Your task to perform on an android device: toggle pop-ups in chrome Image 0: 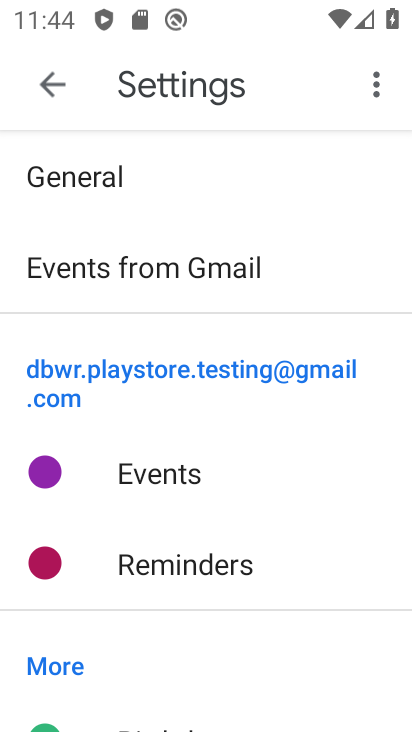
Step 0: press back button
Your task to perform on an android device: toggle pop-ups in chrome Image 1: 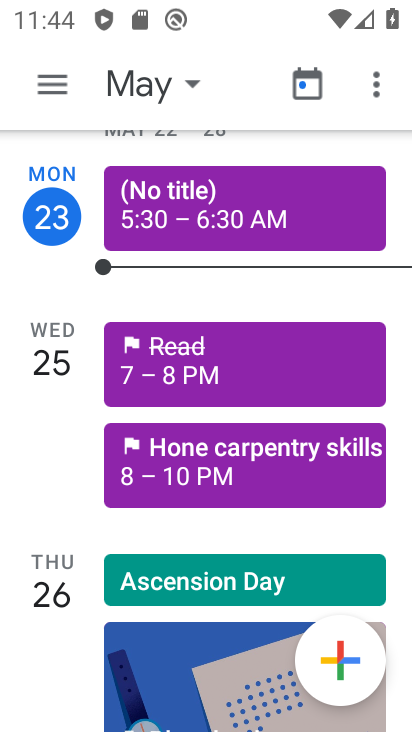
Step 1: press back button
Your task to perform on an android device: toggle pop-ups in chrome Image 2: 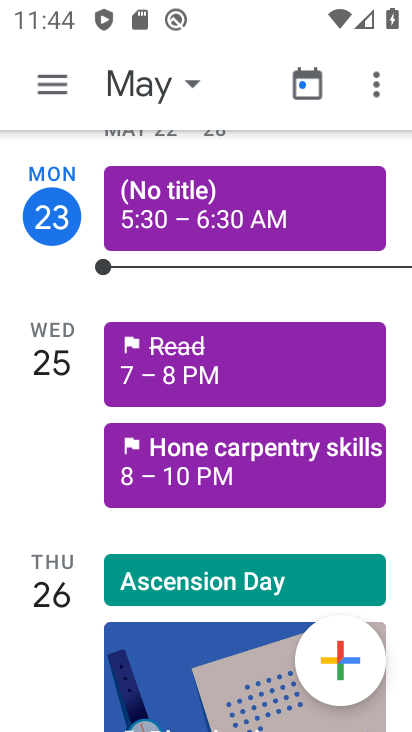
Step 2: press back button
Your task to perform on an android device: toggle pop-ups in chrome Image 3: 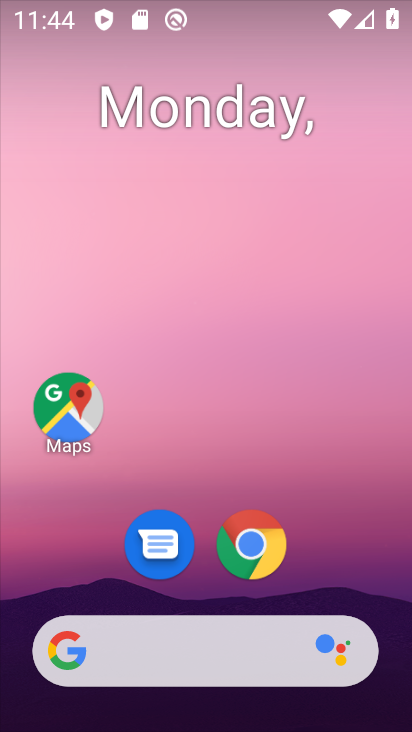
Step 3: press home button
Your task to perform on an android device: toggle pop-ups in chrome Image 4: 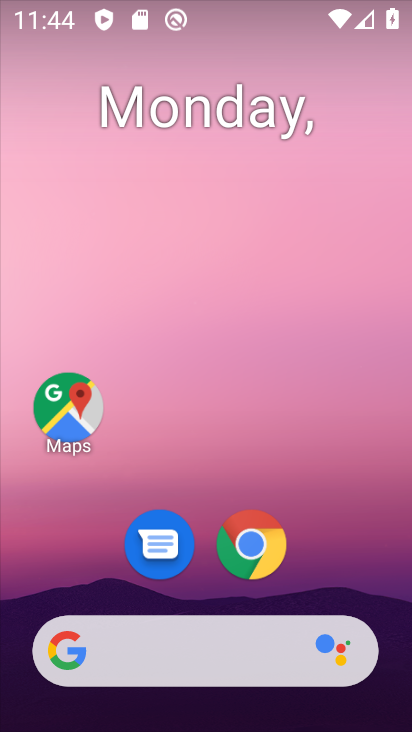
Step 4: click (260, 548)
Your task to perform on an android device: toggle pop-ups in chrome Image 5: 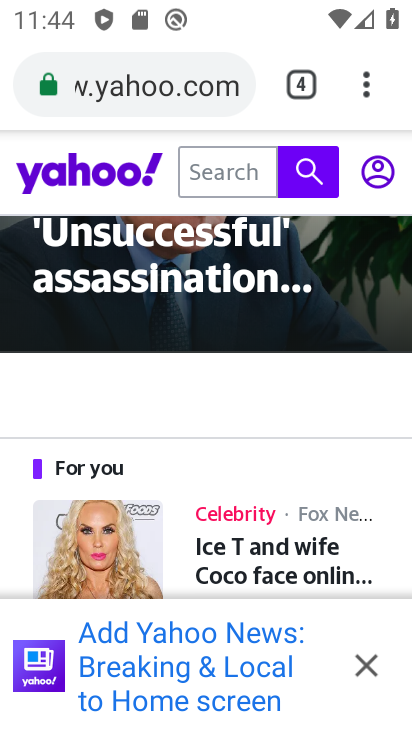
Step 5: click (363, 72)
Your task to perform on an android device: toggle pop-ups in chrome Image 6: 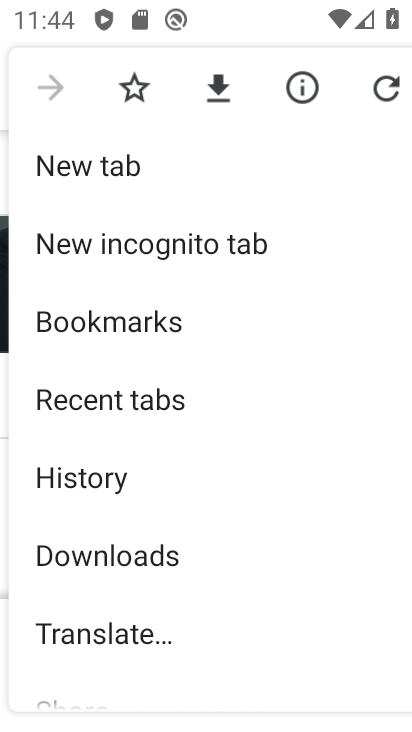
Step 6: click (254, 611)
Your task to perform on an android device: toggle pop-ups in chrome Image 7: 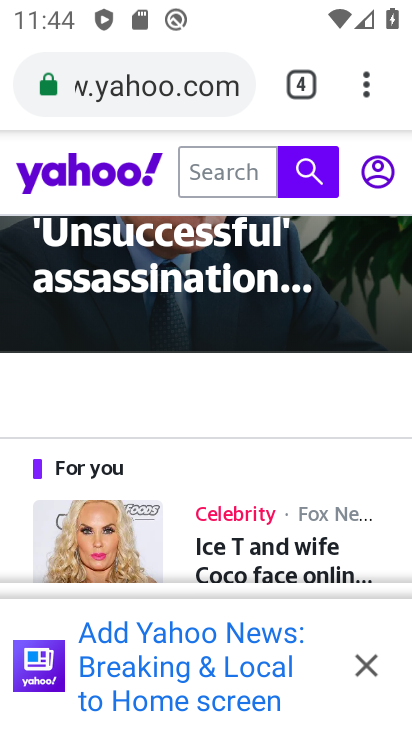
Step 7: click (373, 84)
Your task to perform on an android device: toggle pop-ups in chrome Image 8: 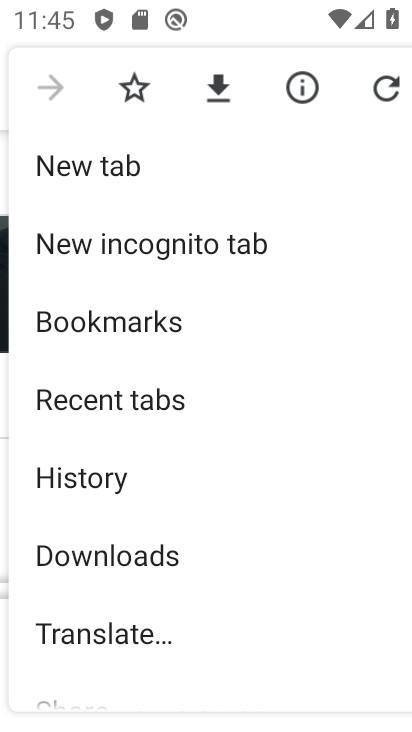
Step 8: click (239, 475)
Your task to perform on an android device: toggle pop-ups in chrome Image 9: 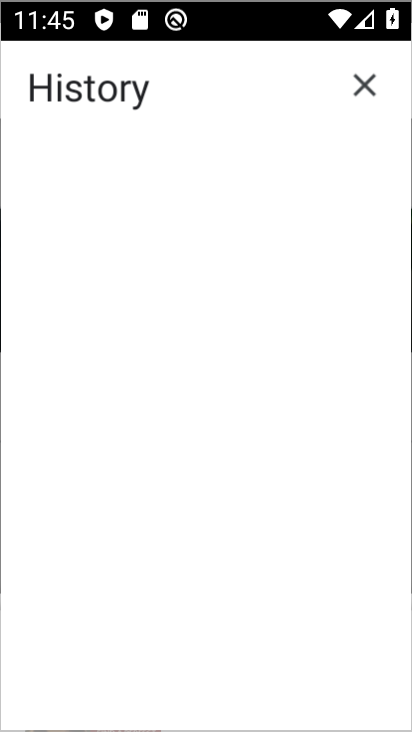
Step 9: drag from (195, 156) to (58, 72)
Your task to perform on an android device: toggle pop-ups in chrome Image 10: 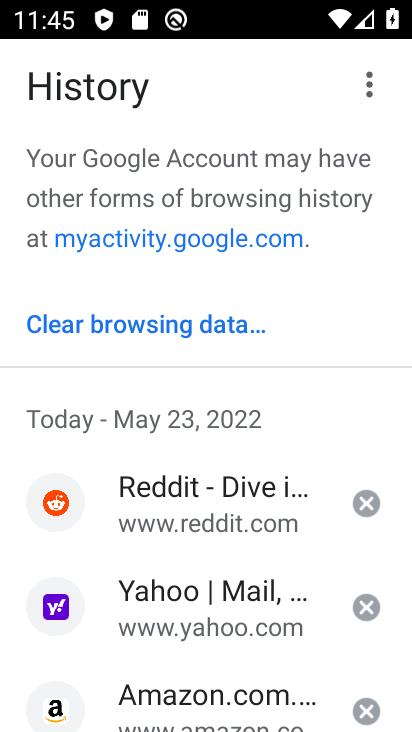
Step 10: press back button
Your task to perform on an android device: toggle pop-ups in chrome Image 11: 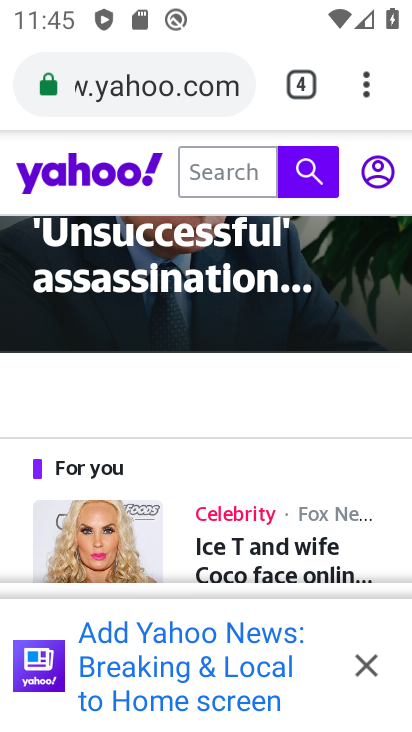
Step 11: click (378, 79)
Your task to perform on an android device: toggle pop-ups in chrome Image 12: 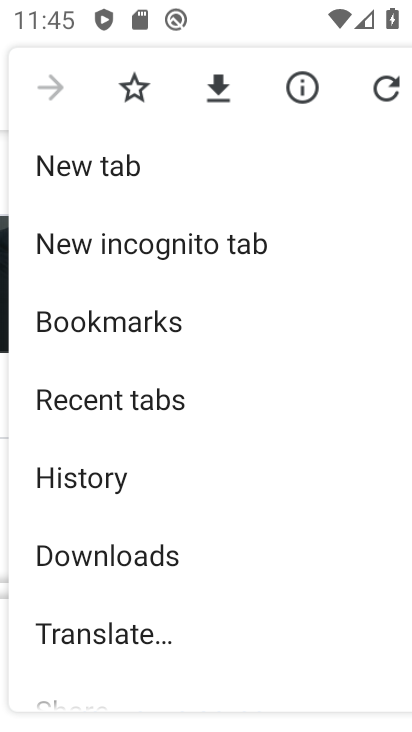
Step 12: drag from (280, 577) to (287, 260)
Your task to perform on an android device: toggle pop-ups in chrome Image 13: 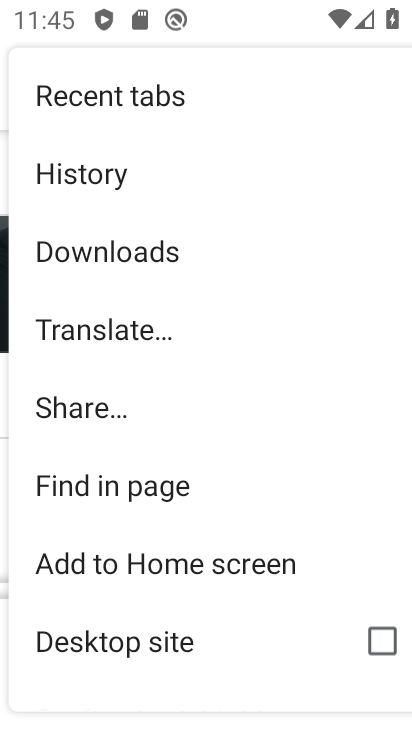
Step 13: drag from (269, 577) to (270, 256)
Your task to perform on an android device: toggle pop-ups in chrome Image 14: 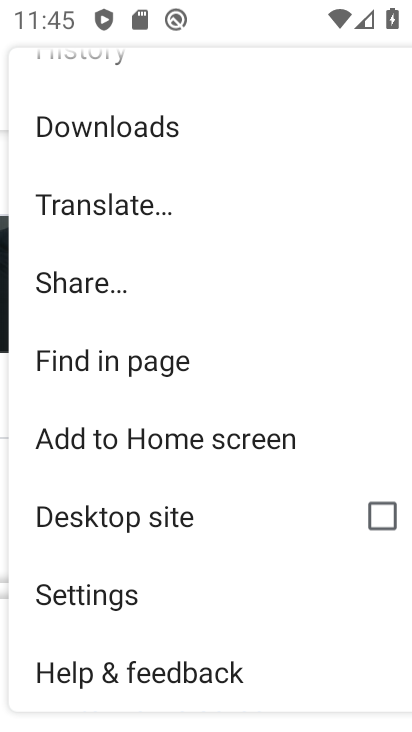
Step 14: click (150, 581)
Your task to perform on an android device: toggle pop-ups in chrome Image 15: 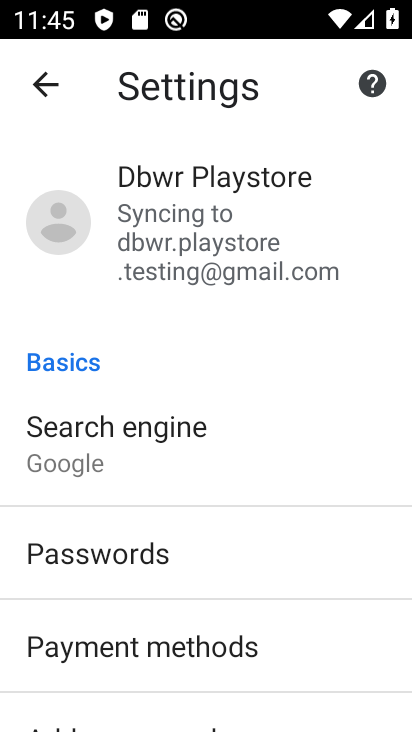
Step 15: drag from (151, 578) to (202, 233)
Your task to perform on an android device: toggle pop-ups in chrome Image 16: 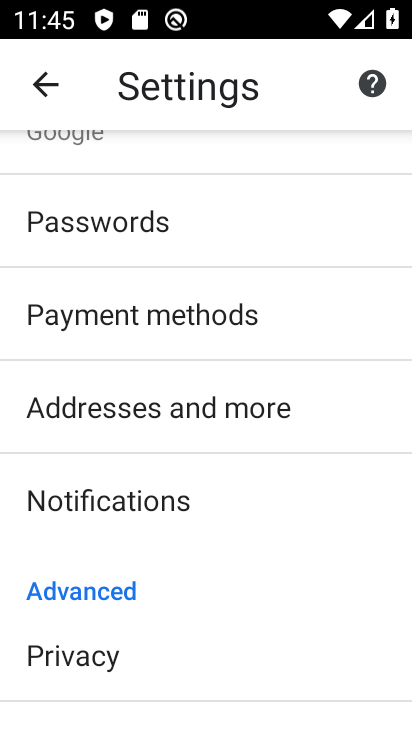
Step 16: drag from (184, 552) to (231, 202)
Your task to perform on an android device: toggle pop-ups in chrome Image 17: 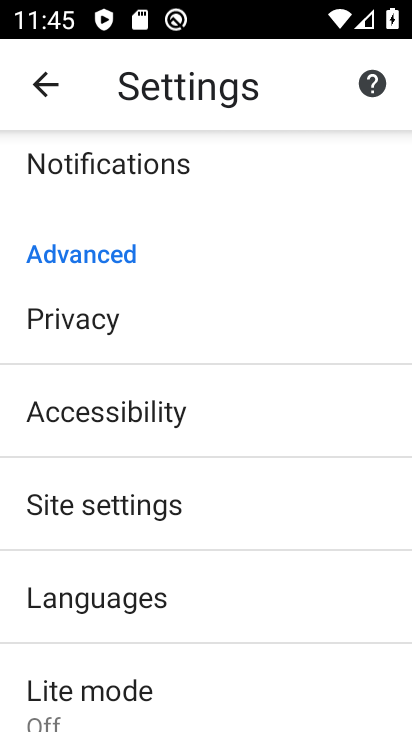
Step 17: click (164, 325)
Your task to perform on an android device: toggle pop-ups in chrome Image 18: 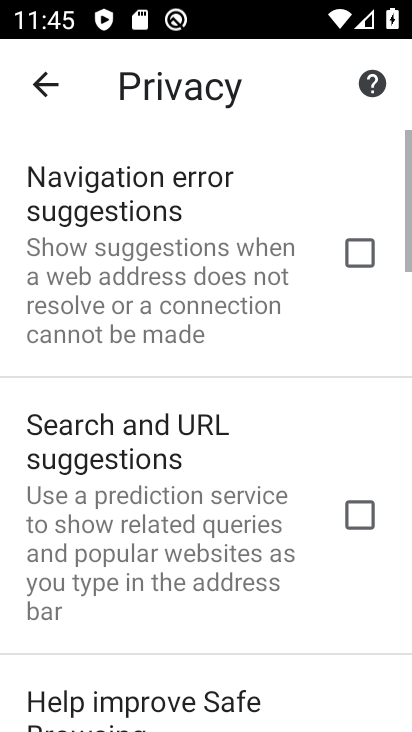
Step 18: drag from (132, 569) to (181, 243)
Your task to perform on an android device: toggle pop-ups in chrome Image 19: 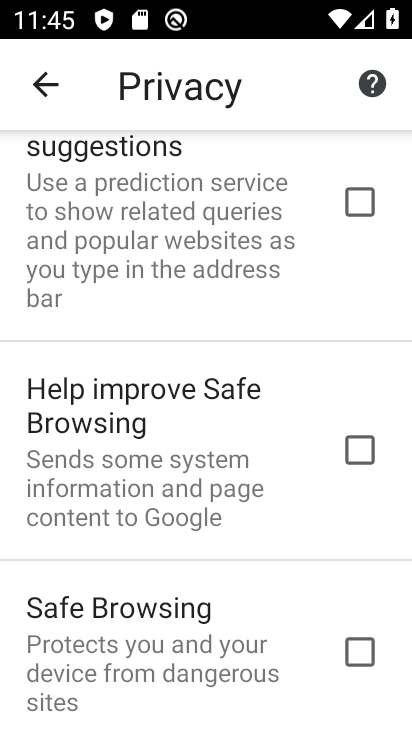
Step 19: drag from (144, 583) to (171, 223)
Your task to perform on an android device: toggle pop-ups in chrome Image 20: 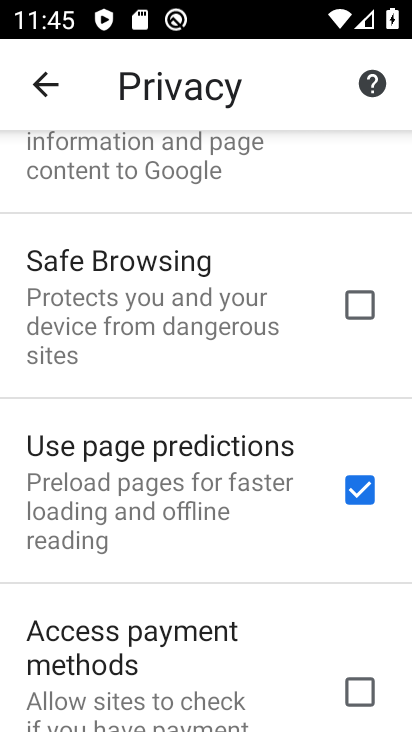
Step 20: press back button
Your task to perform on an android device: toggle pop-ups in chrome Image 21: 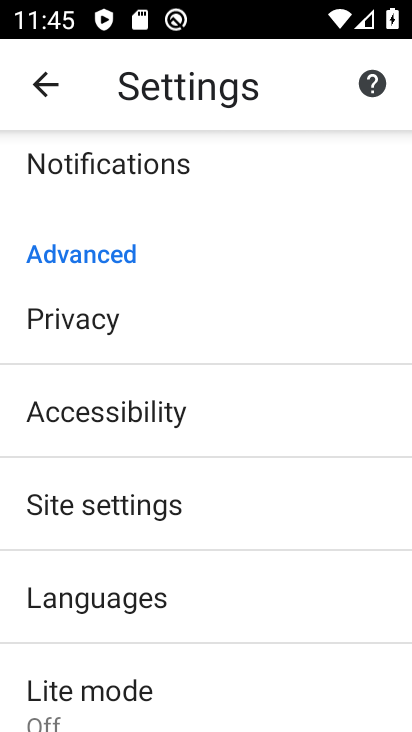
Step 21: click (179, 497)
Your task to perform on an android device: toggle pop-ups in chrome Image 22: 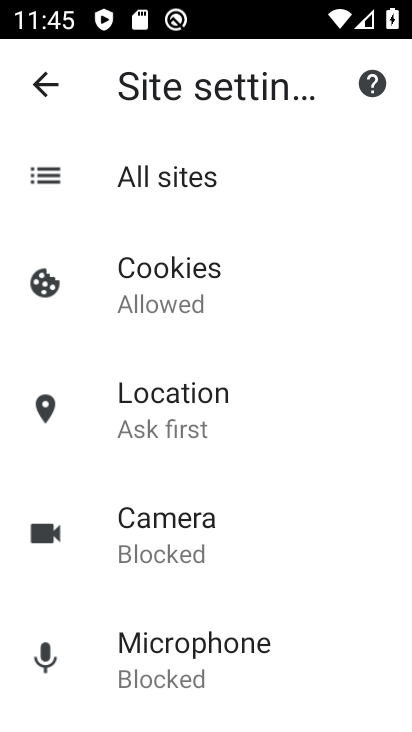
Step 22: drag from (179, 515) to (233, 174)
Your task to perform on an android device: toggle pop-ups in chrome Image 23: 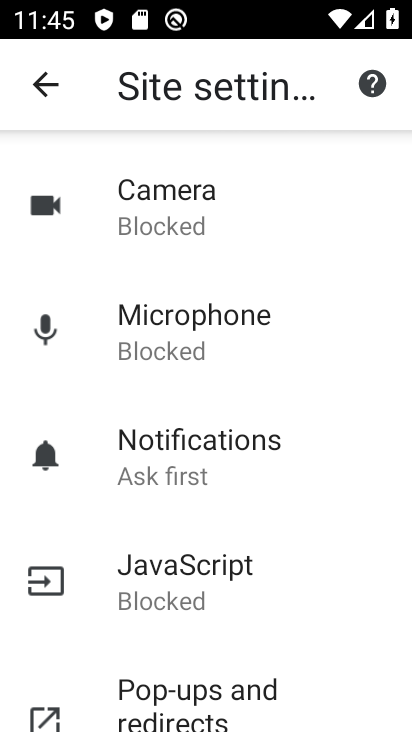
Step 23: drag from (210, 501) to (248, 211)
Your task to perform on an android device: toggle pop-ups in chrome Image 24: 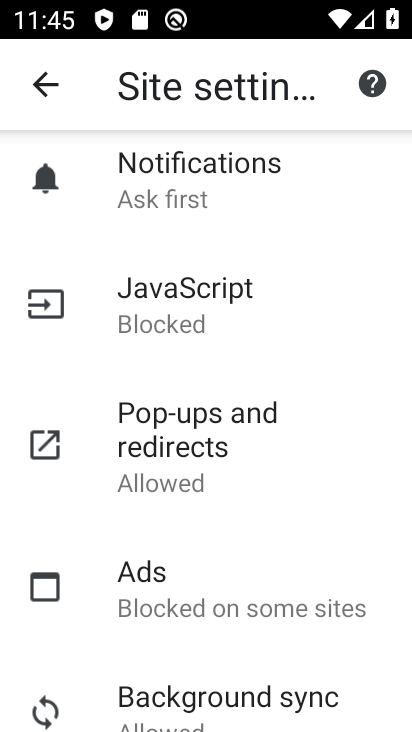
Step 24: click (274, 442)
Your task to perform on an android device: toggle pop-ups in chrome Image 25: 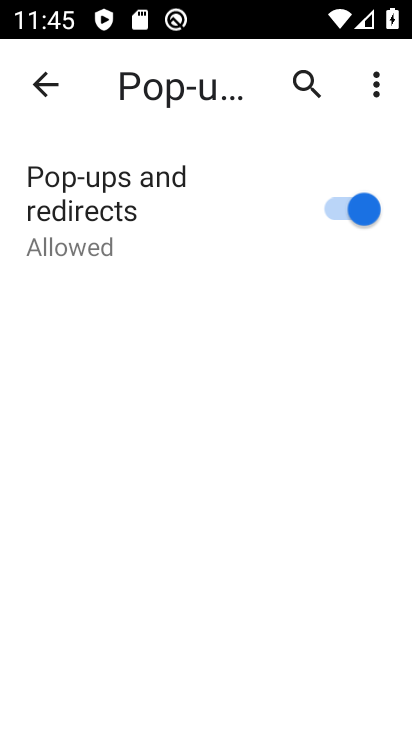
Step 25: click (326, 213)
Your task to perform on an android device: toggle pop-ups in chrome Image 26: 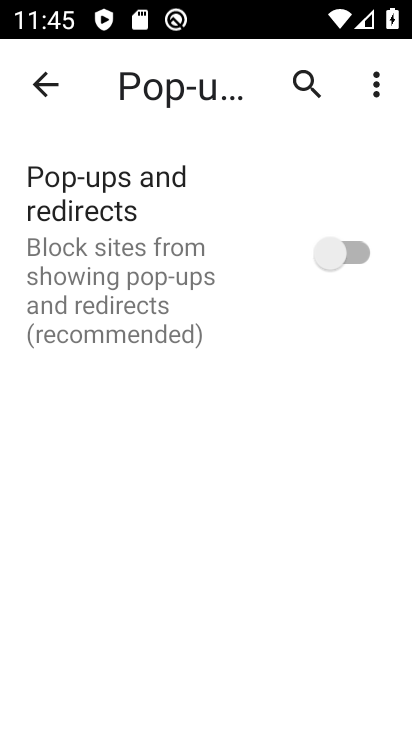
Step 26: task complete